Your task to perform on an android device: see sites visited before in the chrome app Image 0: 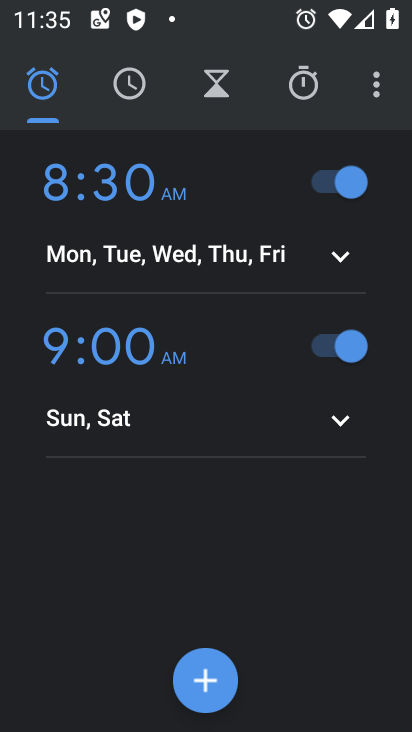
Step 0: press home button
Your task to perform on an android device: see sites visited before in the chrome app Image 1: 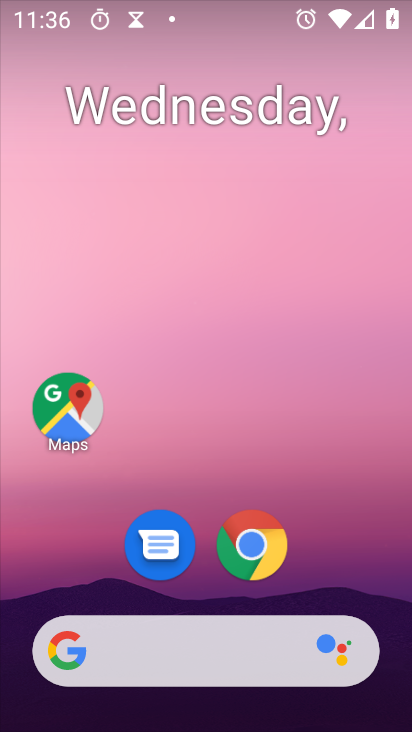
Step 1: click (248, 543)
Your task to perform on an android device: see sites visited before in the chrome app Image 2: 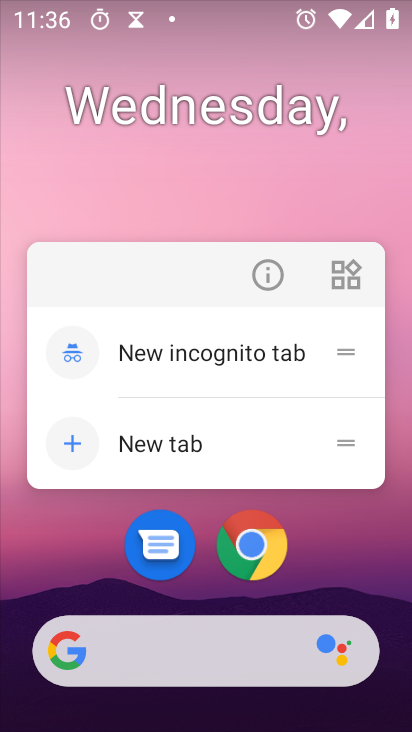
Step 2: click (250, 557)
Your task to perform on an android device: see sites visited before in the chrome app Image 3: 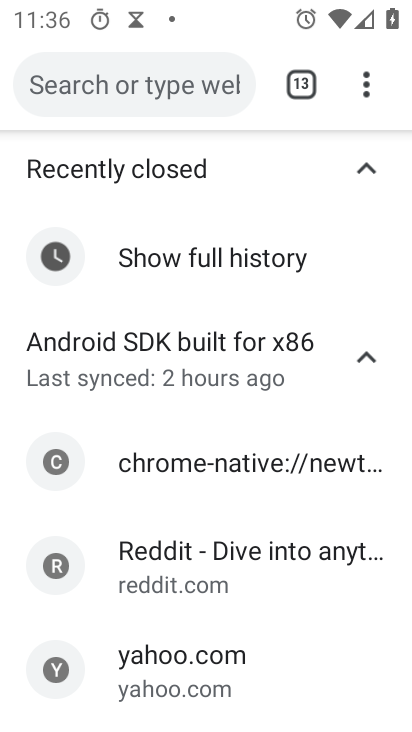
Step 3: task complete